Your task to perform on an android device: toggle notifications settings in the gmail app Image 0: 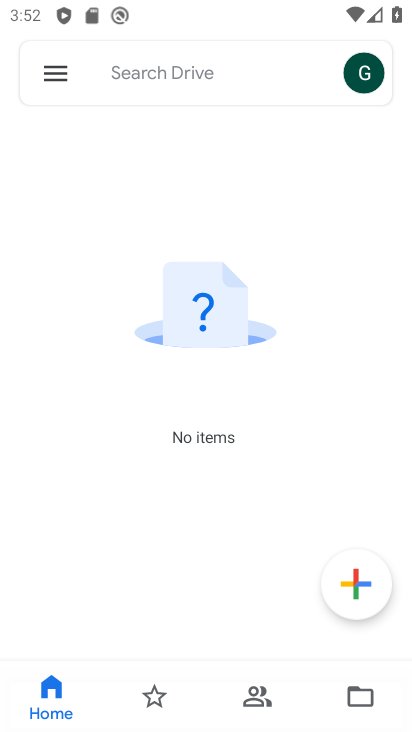
Step 0: press home button
Your task to perform on an android device: toggle notifications settings in the gmail app Image 1: 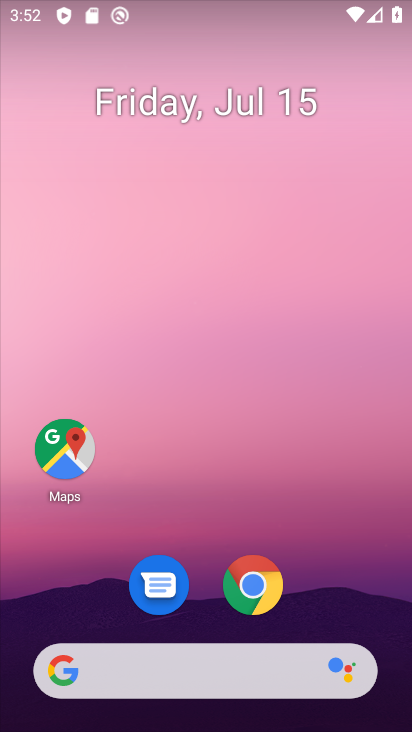
Step 1: drag from (329, 589) to (322, 29)
Your task to perform on an android device: toggle notifications settings in the gmail app Image 2: 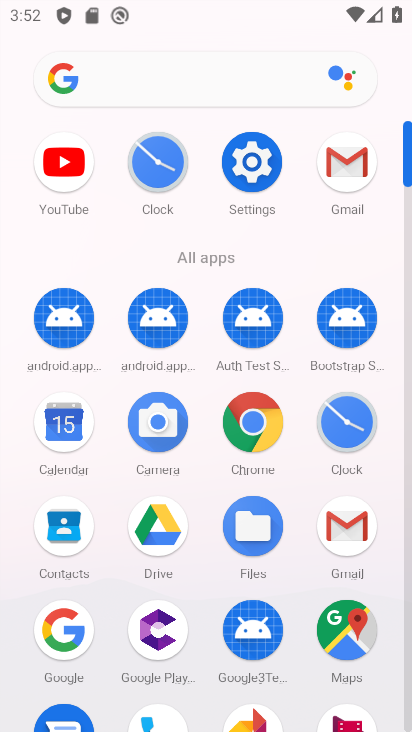
Step 2: click (341, 165)
Your task to perform on an android device: toggle notifications settings in the gmail app Image 3: 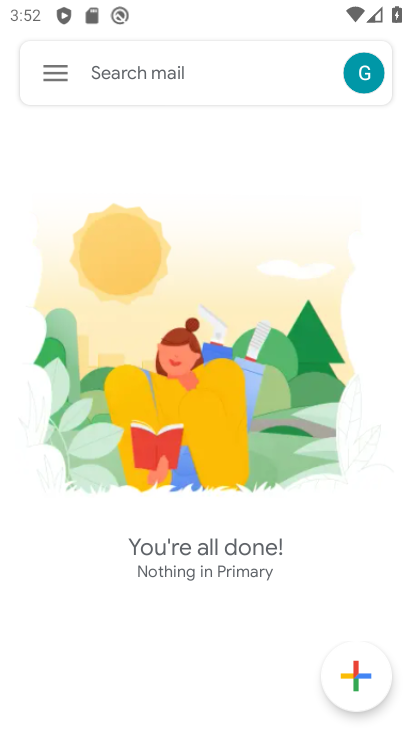
Step 3: click (57, 76)
Your task to perform on an android device: toggle notifications settings in the gmail app Image 4: 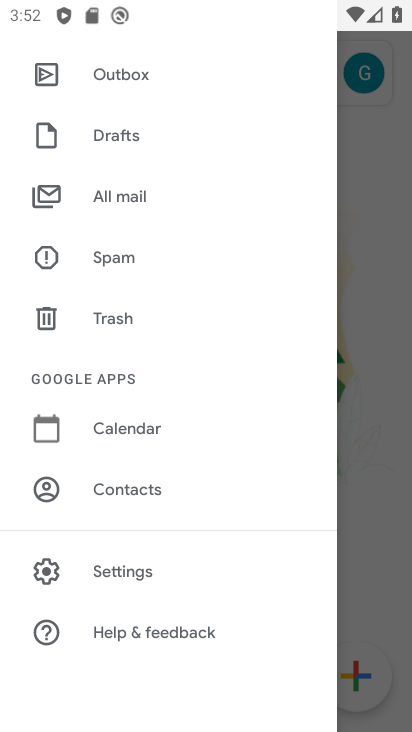
Step 4: click (146, 573)
Your task to perform on an android device: toggle notifications settings in the gmail app Image 5: 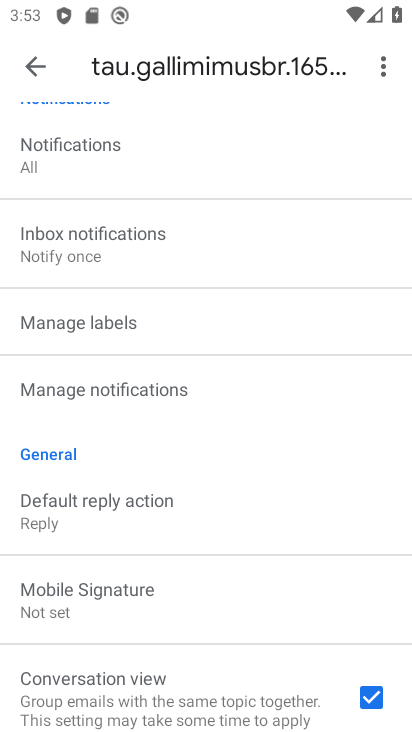
Step 5: click (169, 391)
Your task to perform on an android device: toggle notifications settings in the gmail app Image 6: 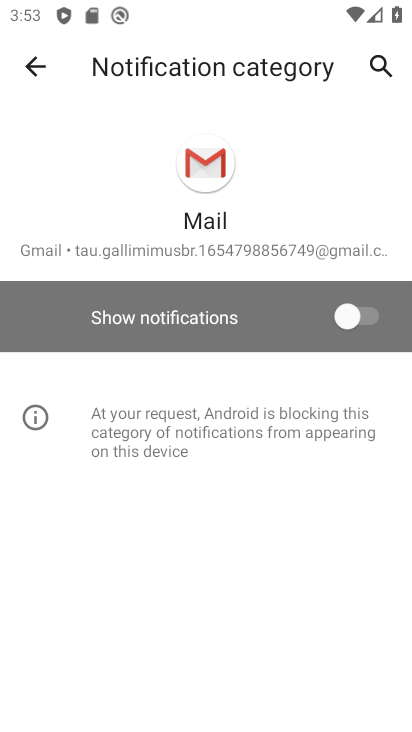
Step 6: click (355, 313)
Your task to perform on an android device: toggle notifications settings in the gmail app Image 7: 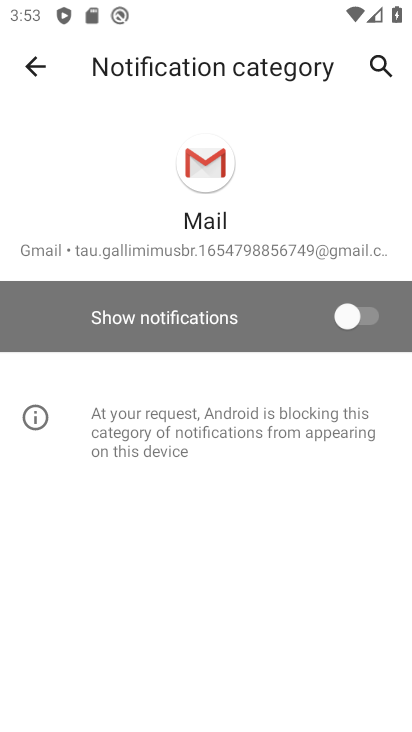
Step 7: click (44, 67)
Your task to perform on an android device: toggle notifications settings in the gmail app Image 8: 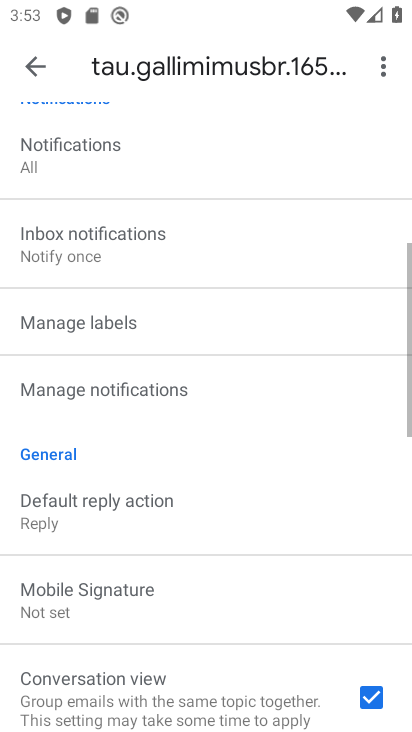
Step 8: click (32, 54)
Your task to perform on an android device: toggle notifications settings in the gmail app Image 9: 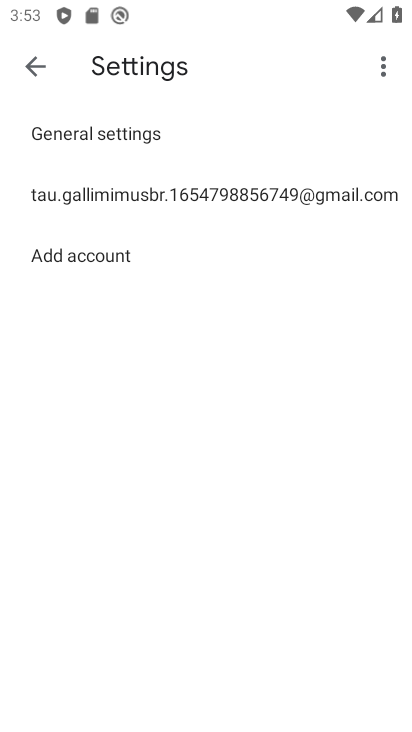
Step 9: click (86, 129)
Your task to perform on an android device: toggle notifications settings in the gmail app Image 10: 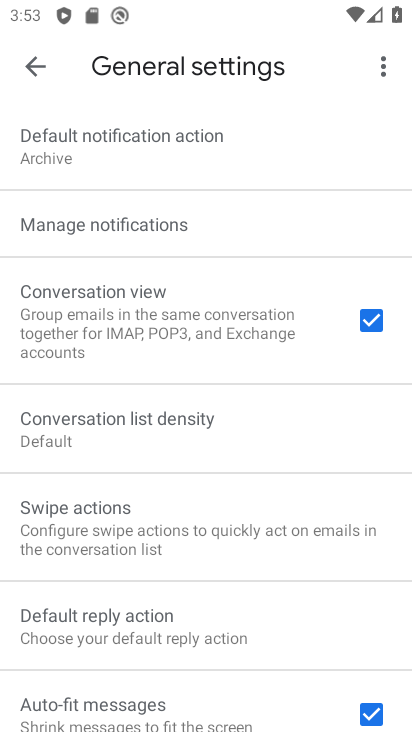
Step 10: click (168, 220)
Your task to perform on an android device: toggle notifications settings in the gmail app Image 11: 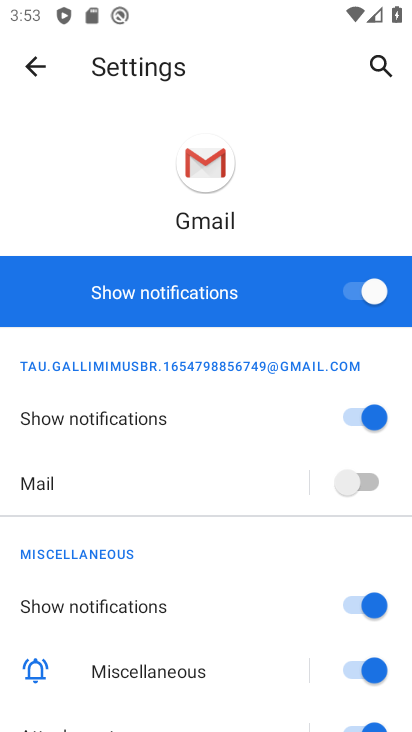
Step 11: click (360, 293)
Your task to perform on an android device: toggle notifications settings in the gmail app Image 12: 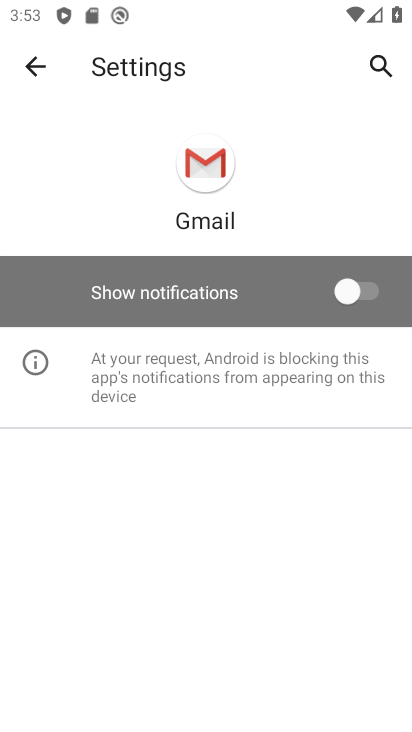
Step 12: task complete